Your task to perform on an android device: Is it going to rain this weekend? Image 0: 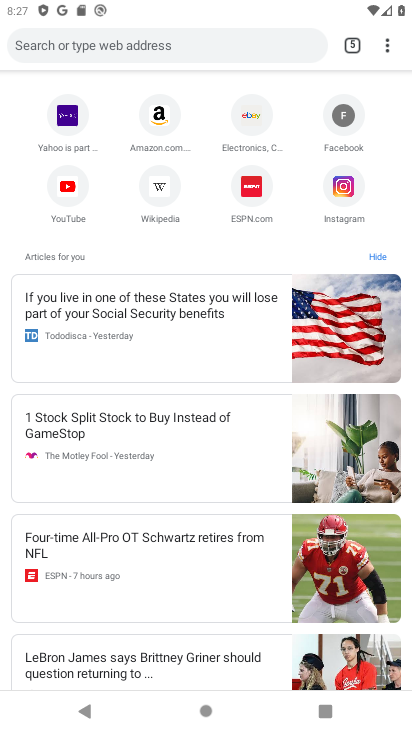
Step 0: drag from (254, 613) to (174, 281)
Your task to perform on an android device: Is it going to rain this weekend? Image 1: 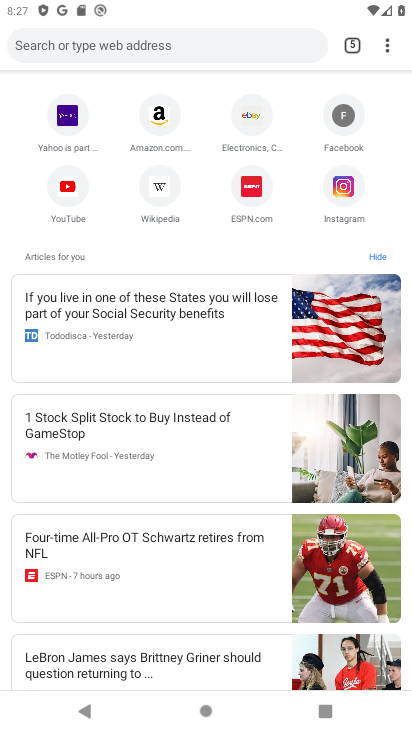
Step 1: press back button
Your task to perform on an android device: Is it going to rain this weekend? Image 2: 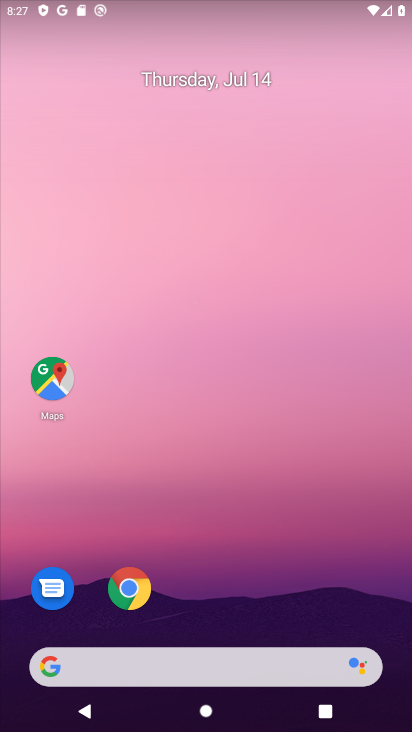
Step 2: drag from (211, 341) to (183, 115)
Your task to perform on an android device: Is it going to rain this weekend? Image 3: 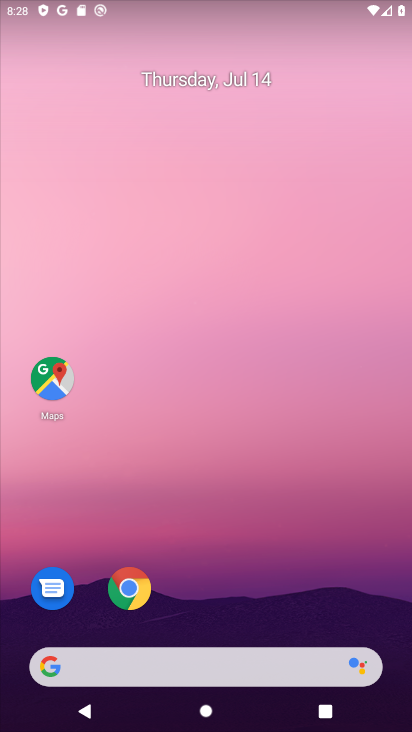
Step 3: drag from (234, 384) to (214, 233)
Your task to perform on an android device: Is it going to rain this weekend? Image 4: 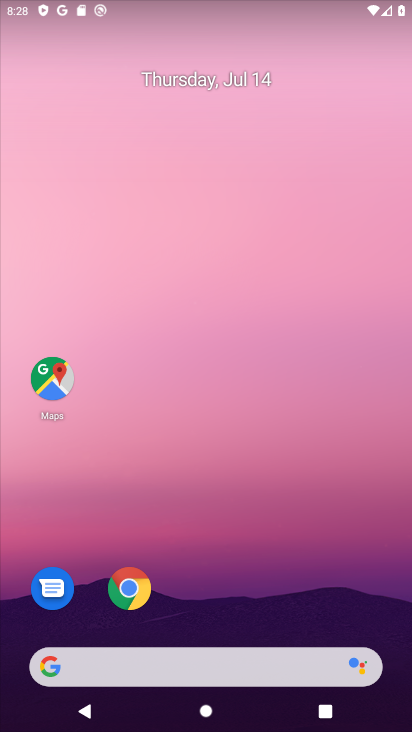
Step 4: drag from (187, 657) to (259, 154)
Your task to perform on an android device: Is it going to rain this weekend? Image 5: 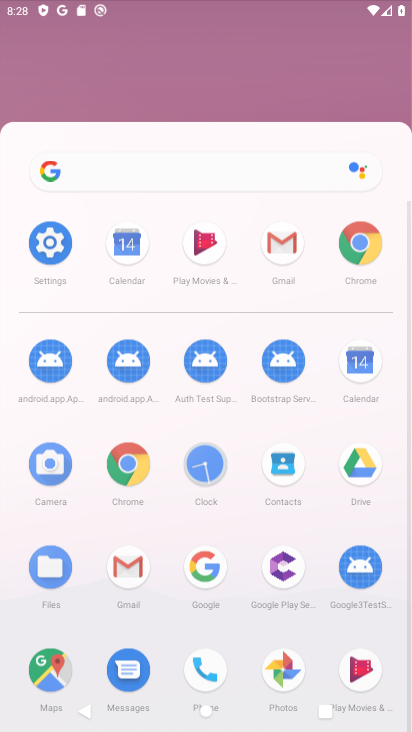
Step 5: drag from (245, 211) to (225, 87)
Your task to perform on an android device: Is it going to rain this weekend? Image 6: 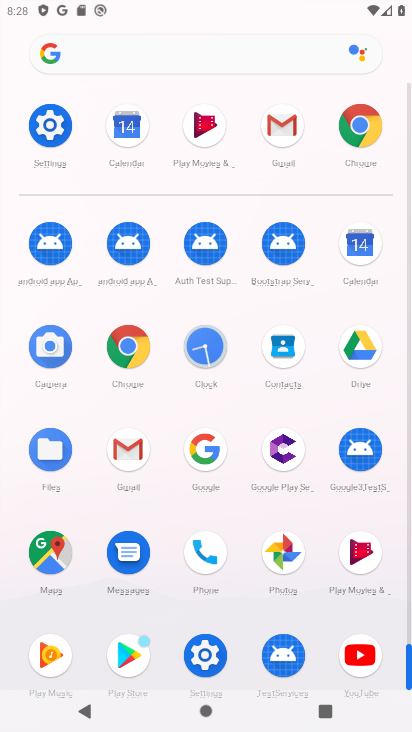
Step 6: drag from (250, 557) to (198, 40)
Your task to perform on an android device: Is it going to rain this weekend? Image 7: 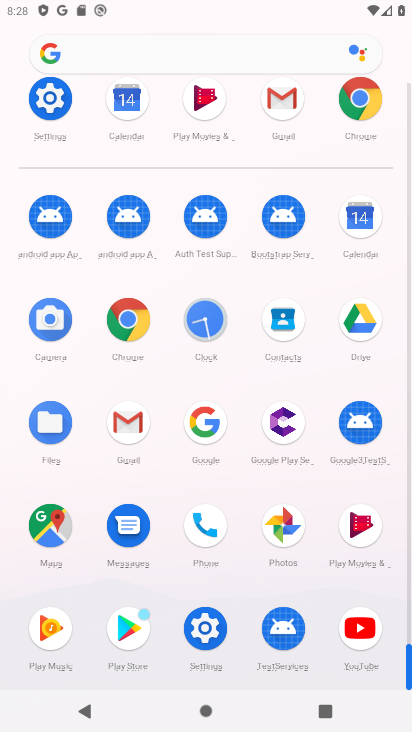
Step 7: click (361, 105)
Your task to perform on an android device: Is it going to rain this weekend? Image 8: 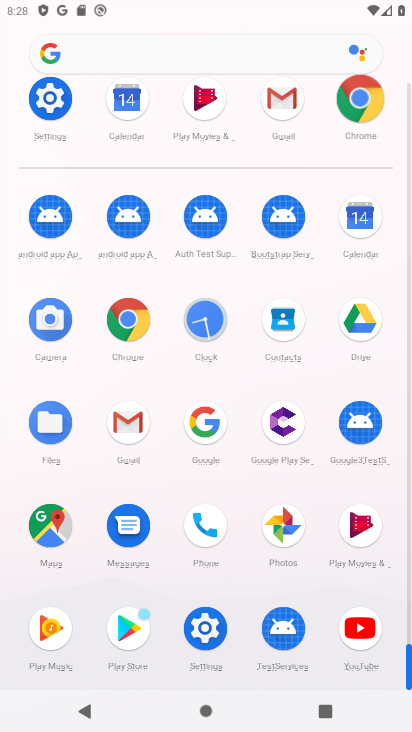
Step 8: click (363, 105)
Your task to perform on an android device: Is it going to rain this weekend? Image 9: 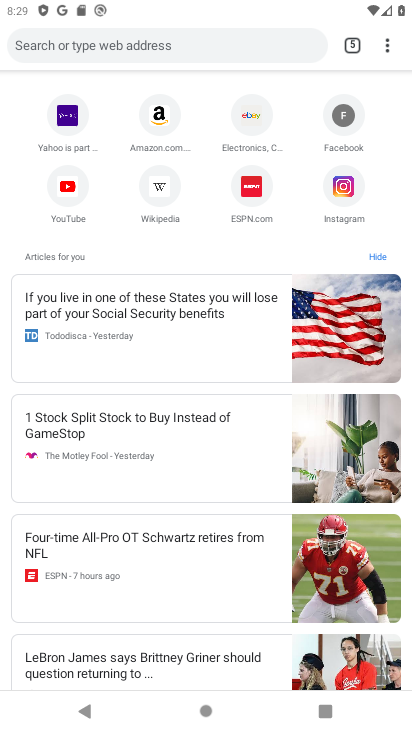
Step 9: click (101, 48)
Your task to perform on an android device: Is it going to rain this weekend? Image 10: 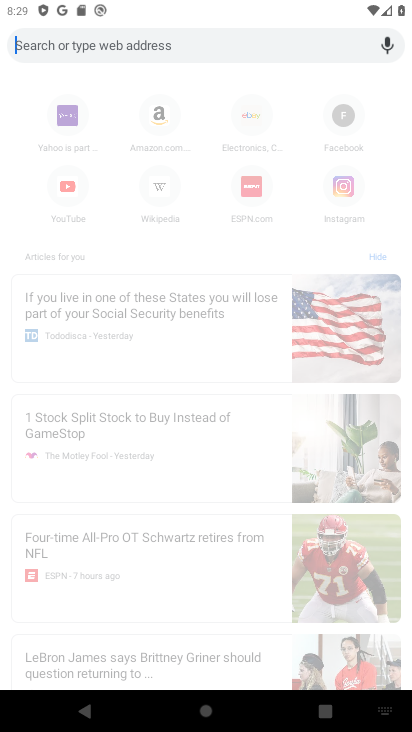
Step 10: type "is it going to rain this weekend"
Your task to perform on an android device: Is it going to rain this weekend? Image 11: 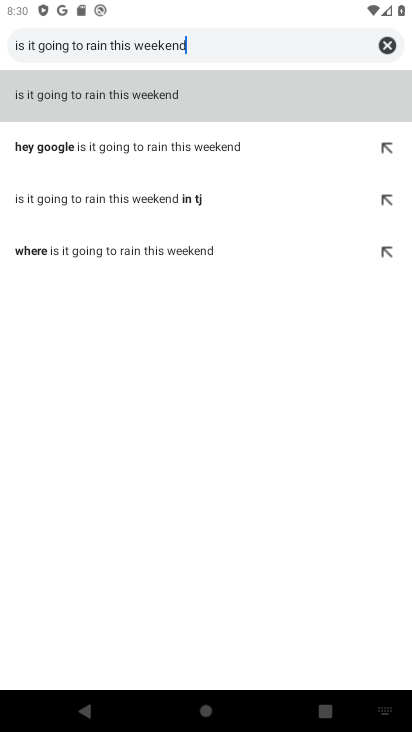
Step 11: click (157, 87)
Your task to perform on an android device: Is it going to rain this weekend? Image 12: 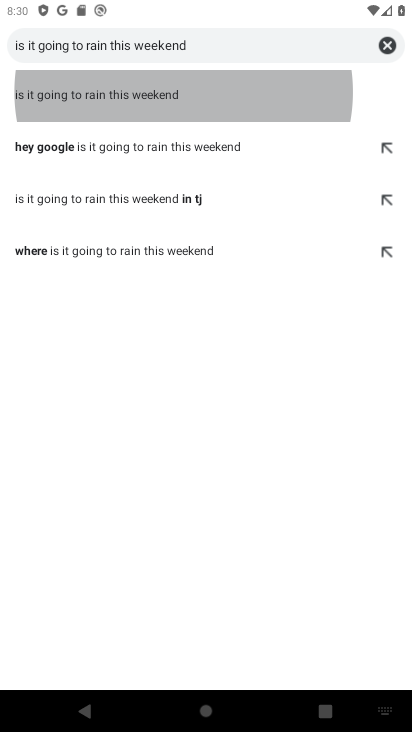
Step 12: click (157, 88)
Your task to perform on an android device: Is it going to rain this weekend? Image 13: 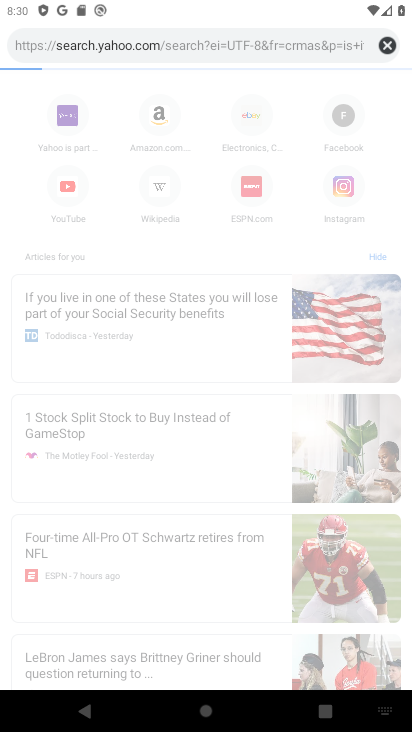
Step 13: click (157, 89)
Your task to perform on an android device: Is it going to rain this weekend? Image 14: 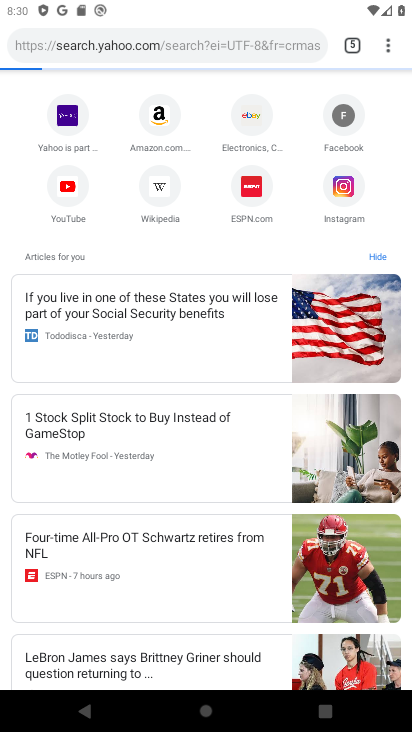
Step 14: click (155, 89)
Your task to perform on an android device: Is it going to rain this weekend? Image 15: 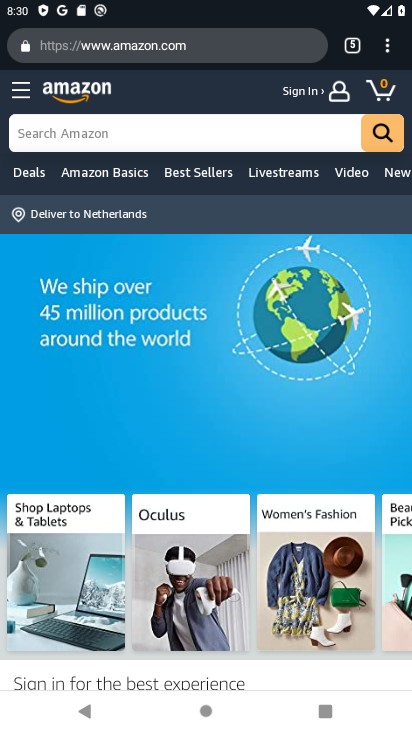
Step 15: task complete